Your task to perform on an android device: When is my next meeting? Image 0: 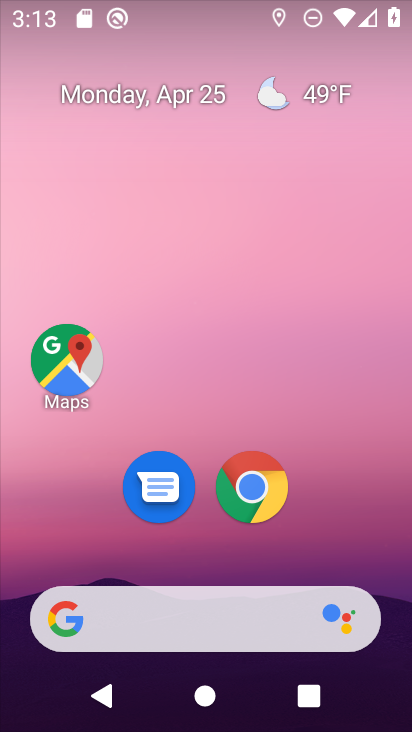
Step 0: drag from (381, 574) to (385, 11)
Your task to perform on an android device: When is my next meeting? Image 1: 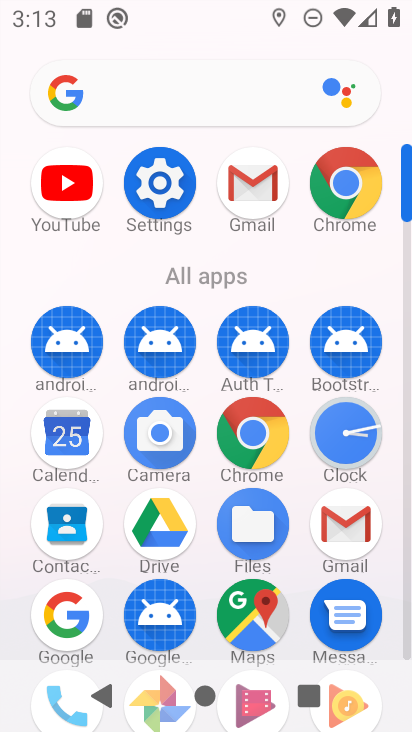
Step 1: click (57, 432)
Your task to perform on an android device: When is my next meeting? Image 2: 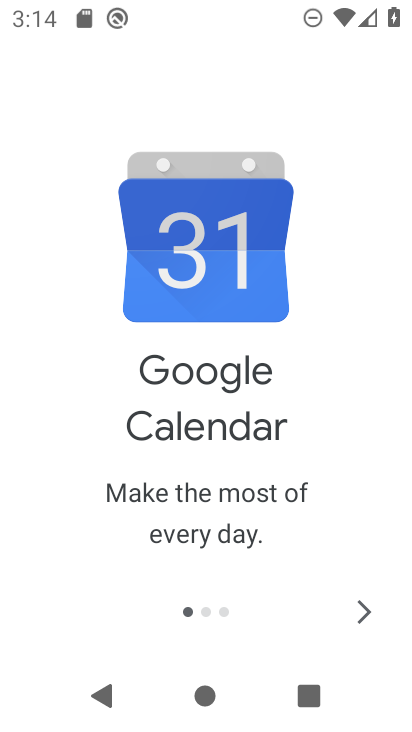
Step 2: click (360, 614)
Your task to perform on an android device: When is my next meeting? Image 3: 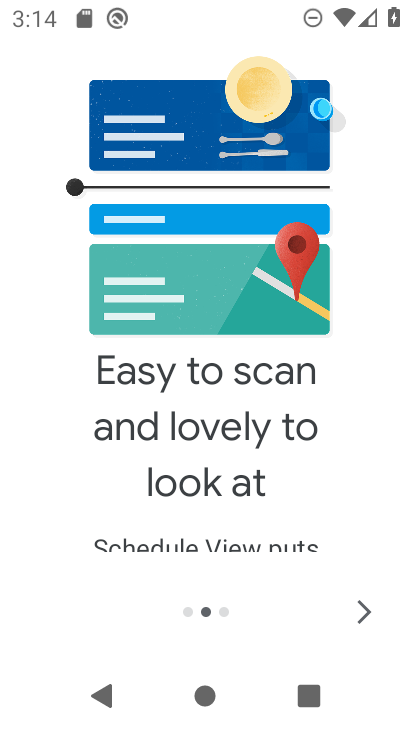
Step 3: click (360, 614)
Your task to perform on an android device: When is my next meeting? Image 4: 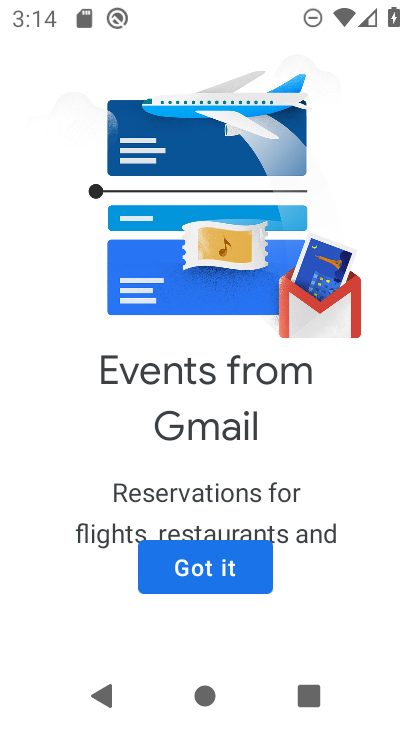
Step 4: click (214, 567)
Your task to perform on an android device: When is my next meeting? Image 5: 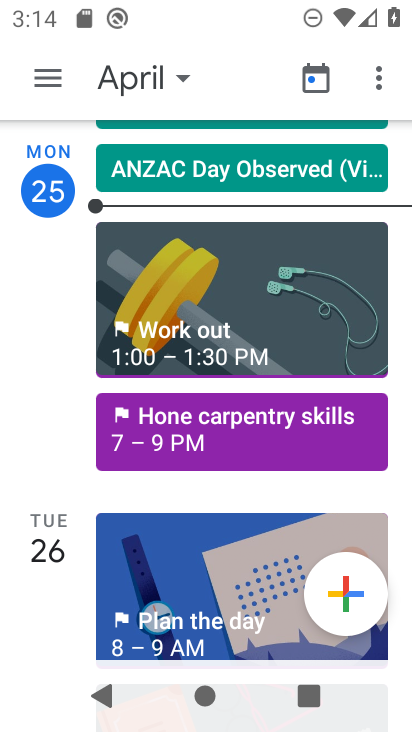
Step 5: click (182, 82)
Your task to perform on an android device: When is my next meeting? Image 6: 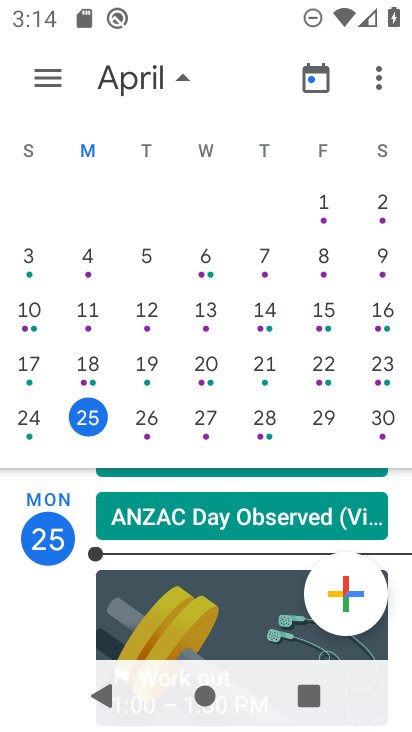
Step 6: drag from (191, 466) to (197, 249)
Your task to perform on an android device: When is my next meeting? Image 7: 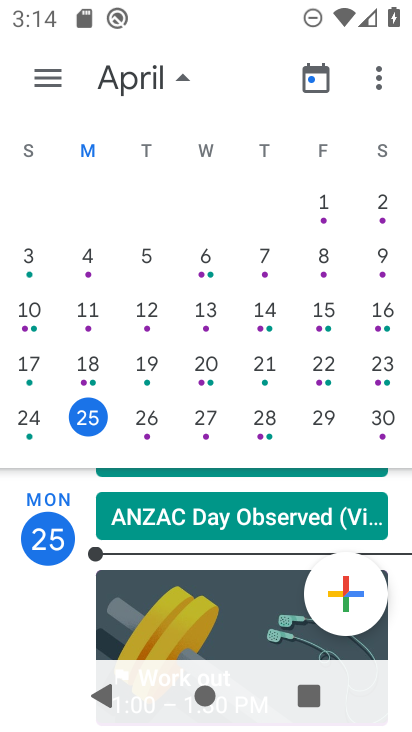
Step 7: drag from (217, 543) to (209, 267)
Your task to perform on an android device: When is my next meeting? Image 8: 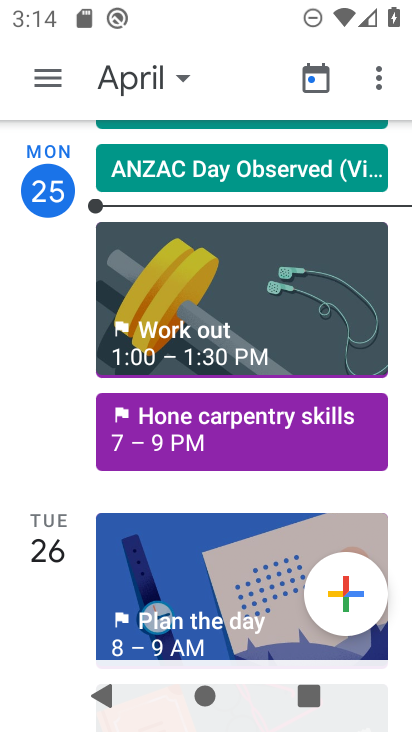
Step 8: drag from (215, 491) to (219, 351)
Your task to perform on an android device: When is my next meeting? Image 9: 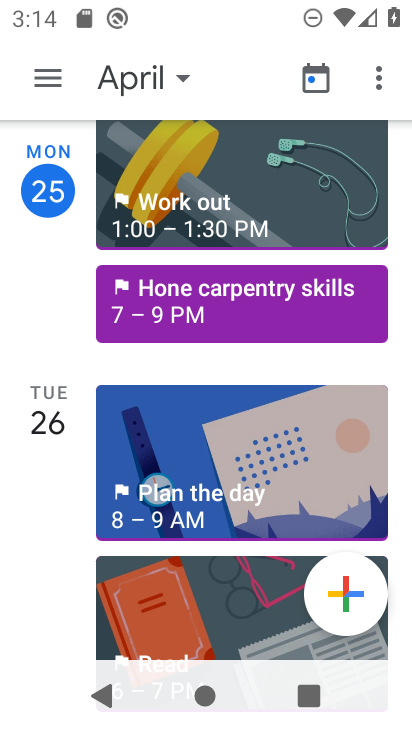
Step 9: click (221, 301)
Your task to perform on an android device: When is my next meeting? Image 10: 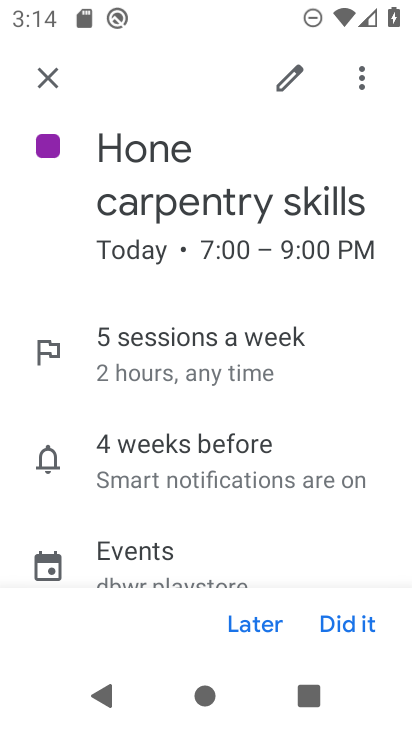
Step 10: task complete